Your task to perform on an android device: toggle data saver in the chrome app Image 0: 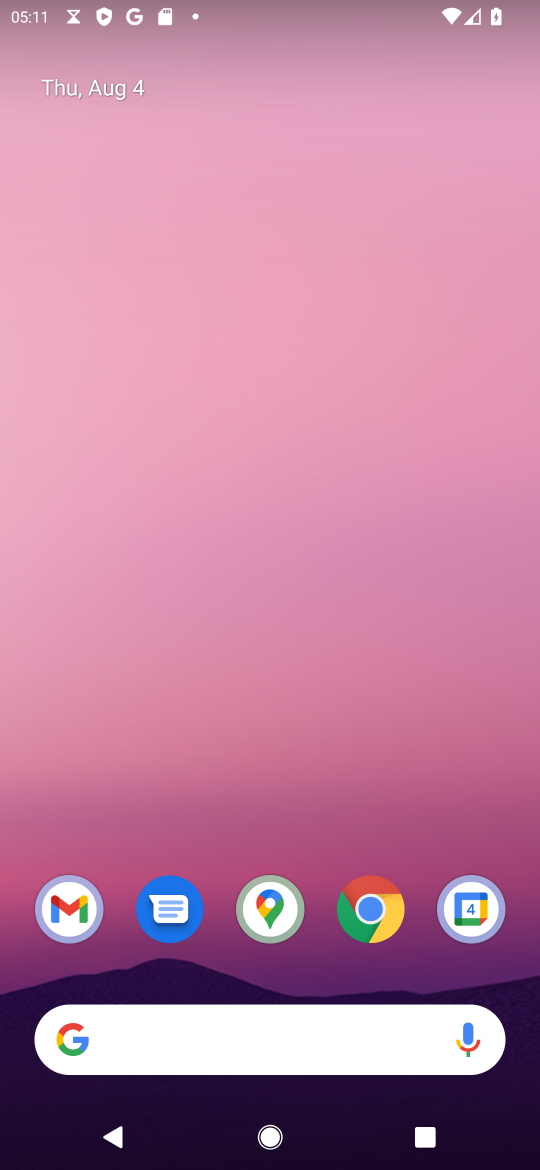
Step 0: click (378, 901)
Your task to perform on an android device: toggle data saver in the chrome app Image 1: 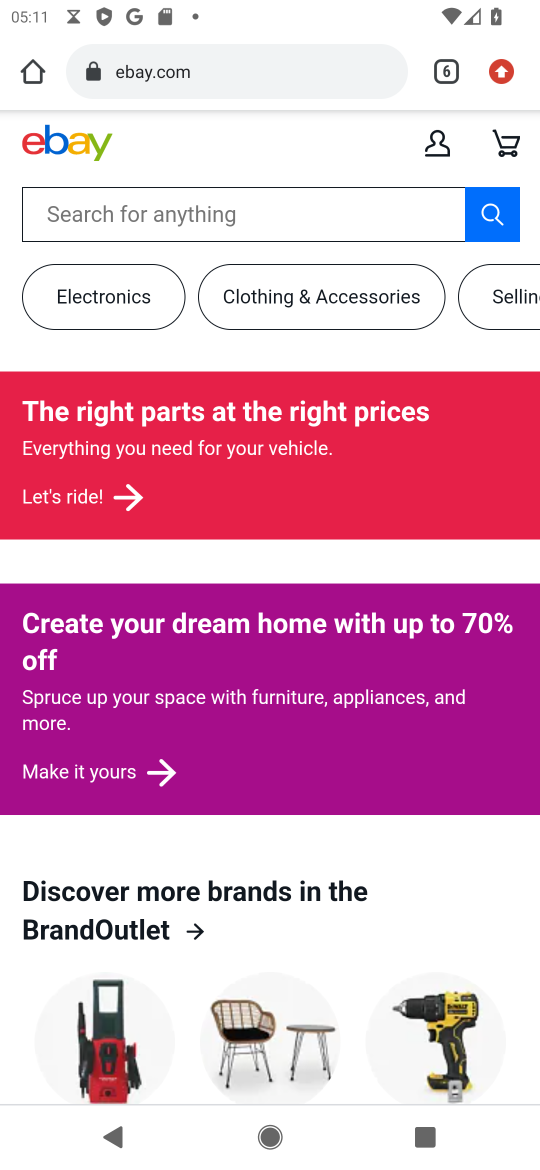
Step 1: drag from (499, 91) to (295, 973)
Your task to perform on an android device: toggle data saver in the chrome app Image 2: 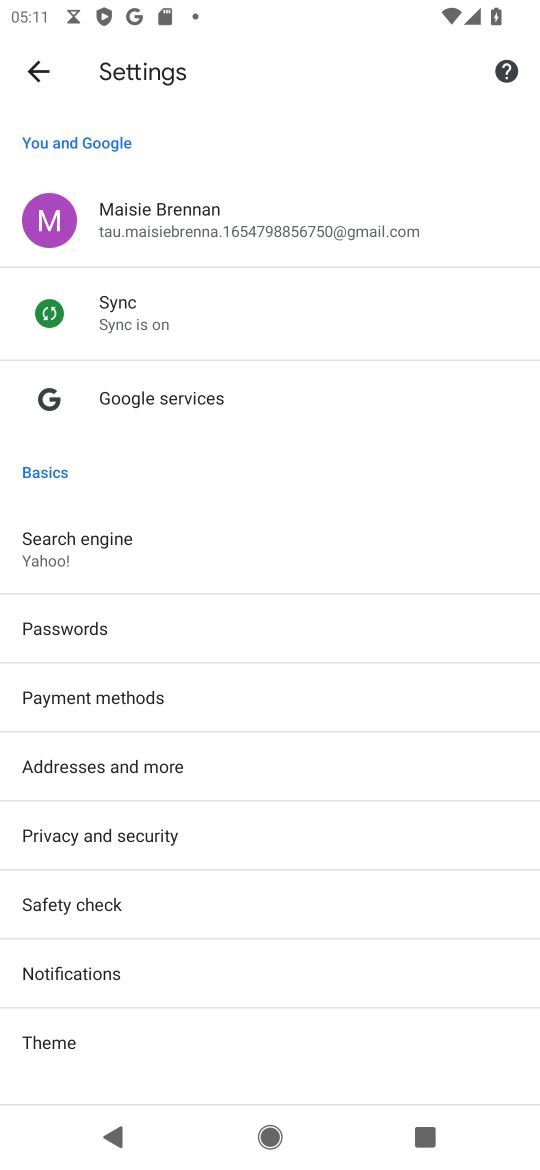
Step 2: drag from (172, 998) to (421, 245)
Your task to perform on an android device: toggle data saver in the chrome app Image 3: 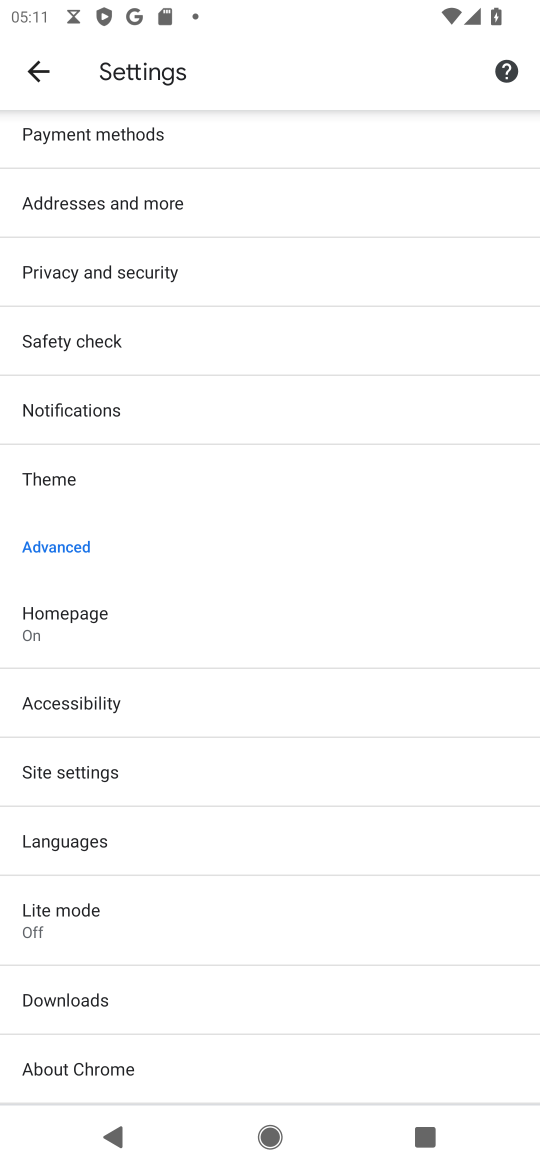
Step 3: click (90, 934)
Your task to perform on an android device: toggle data saver in the chrome app Image 4: 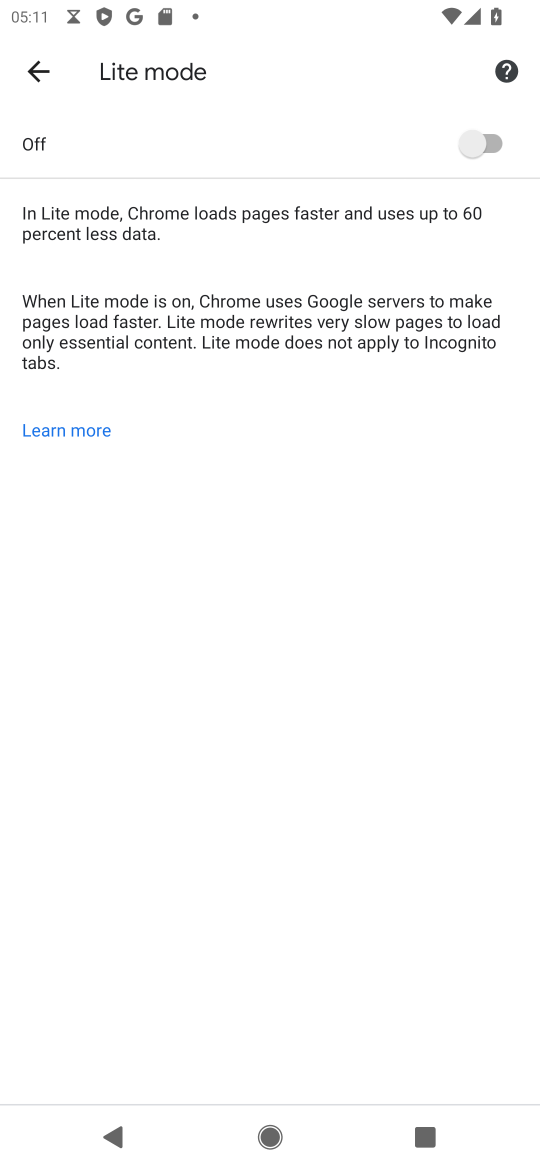
Step 4: click (491, 142)
Your task to perform on an android device: toggle data saver in the chrome app Image 5: 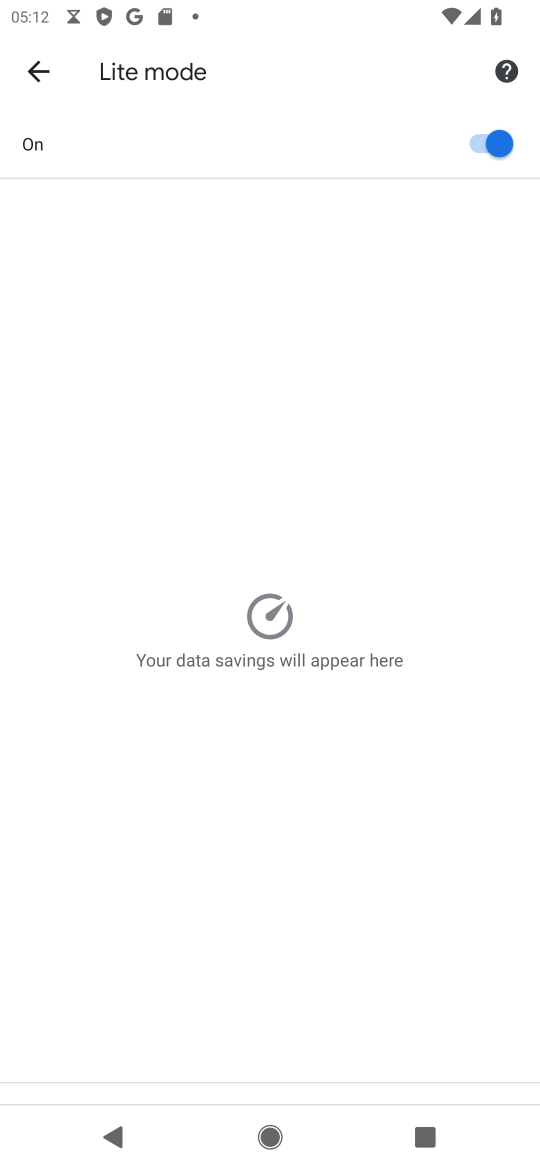
Step 5: task complete